Your task to perform on an android device: Open location settings Image 0: 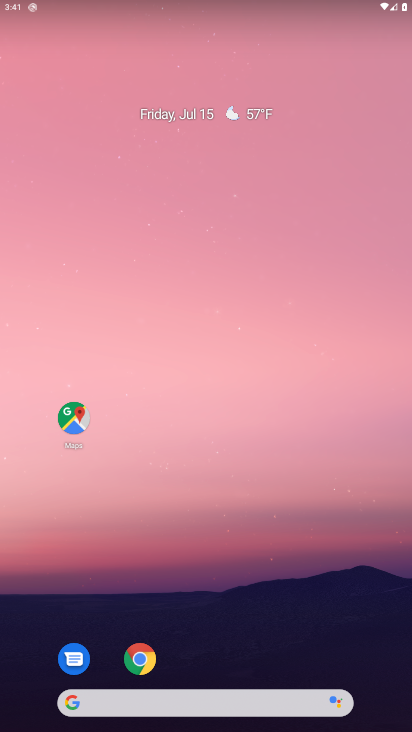
Step 0: drag from (21, 691) to (226, 294)
Your task to perform on an android device: Open location settings Image 1: 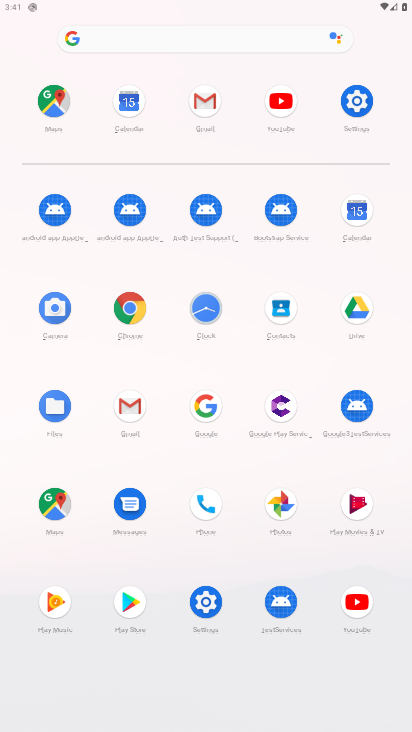
Step 1: click (47, 502)
Your task to perform on an android device: Open location settings Image 2: 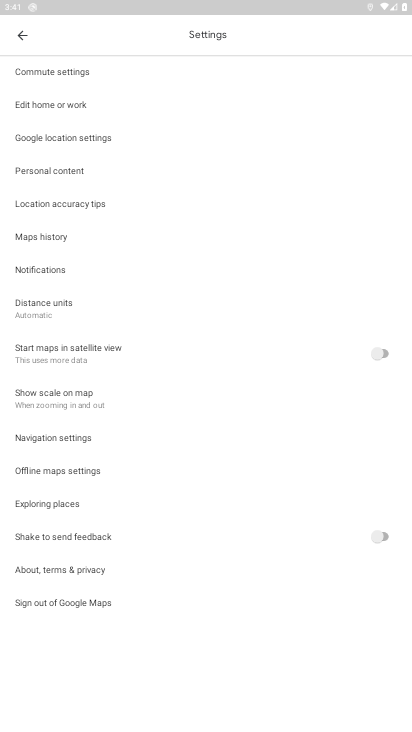
Step 2: task complete